Your task to perform on an android device: Open calendar and show me the second week of next month Image 0: 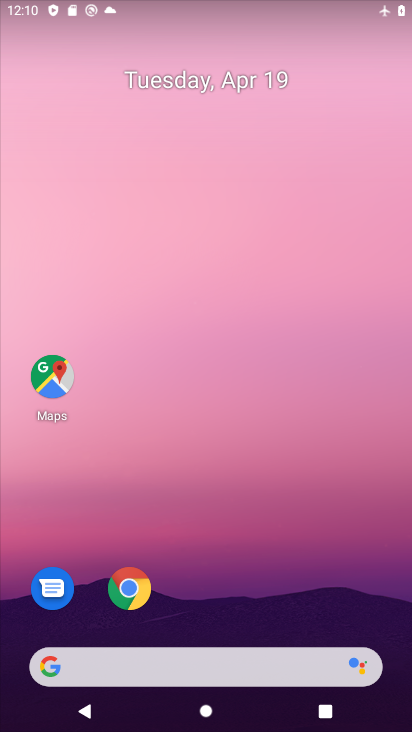
Step 0: drag from (373, 607) to (380, 77)
Your task to perform on an android device: Open calendar and show me the second week of next month Image 1: 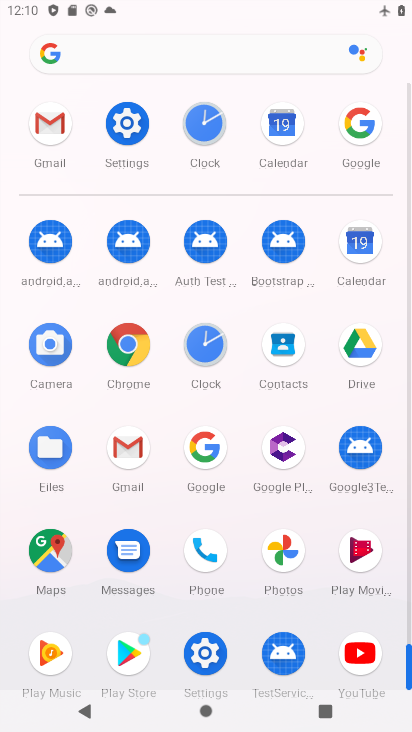
Step 1: click (359, 253)
Your task to perform on an android device: Open calendar and show me the second week of next month Image 2: 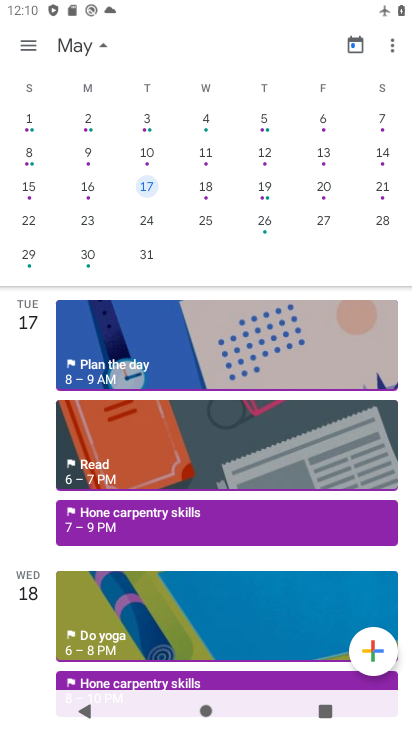
Step 2: click (146, 148)
Your task to perform on an android device: Open calendar and show me the second week of next month Image 3: 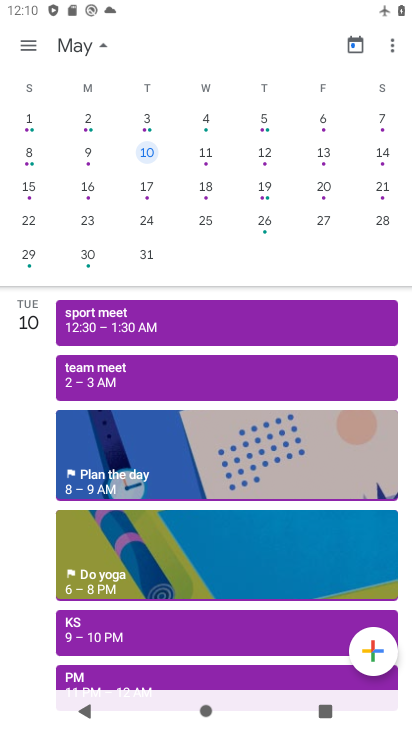
Step 3: task complete